Your task to perform on an android device: check out phone information Image 0: 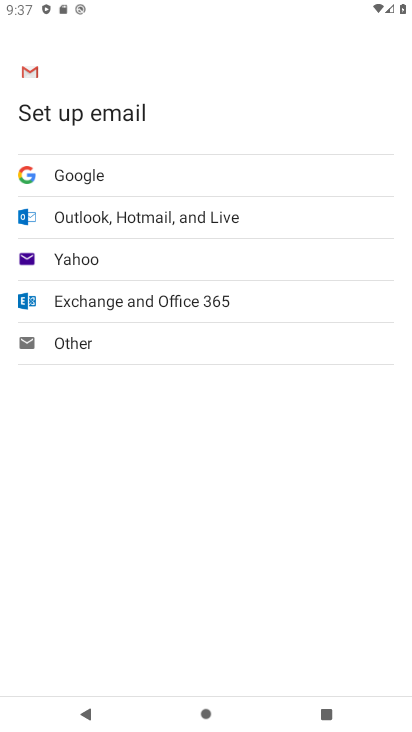
Step 0: drag from (212, 680) to (221, 160)
Your task to perform on an android device: check out phone information Image 1: 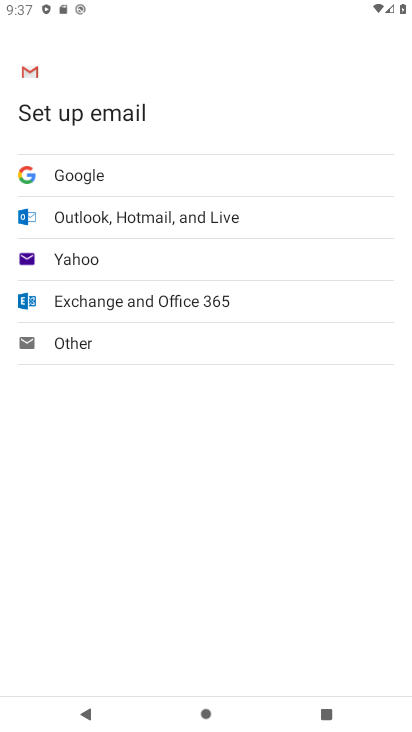
Step 1: press back button
Your task to perform on an android device: check out phone information Image 2: 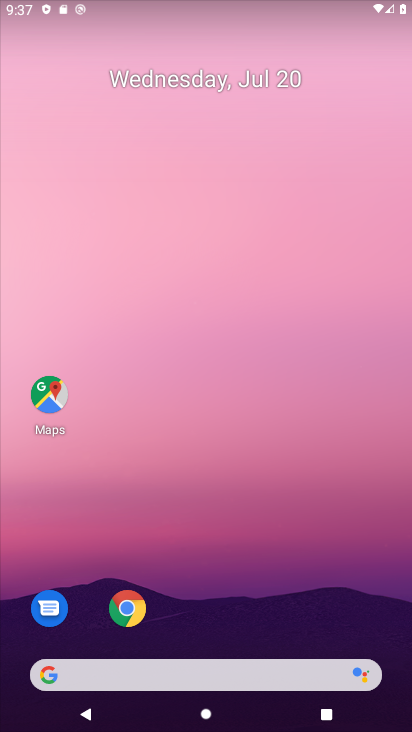
Step 2: drag from (200, 494) to (162, 54)
Your task to perform on an android device: check out phone information Image 3: 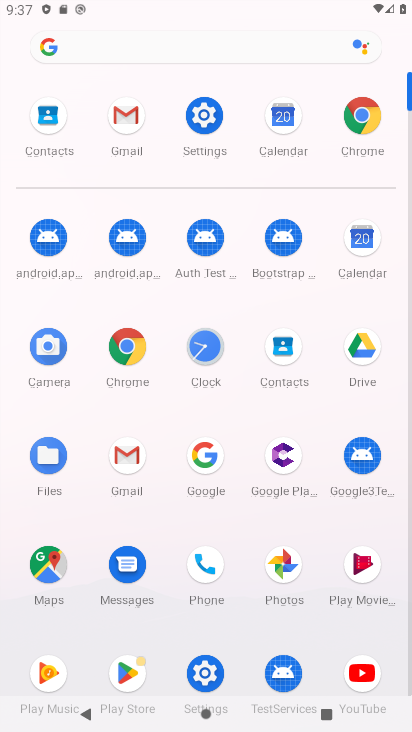
Step 3: click (188, 123)
Your task to perform on an android device: check out phone information Image 4: 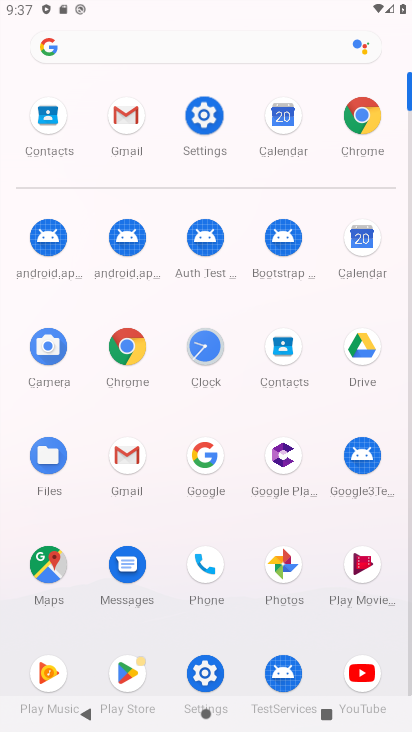
Step 4: click (198, 119)
Your task to perform on an android device: check out phone information Image 5: 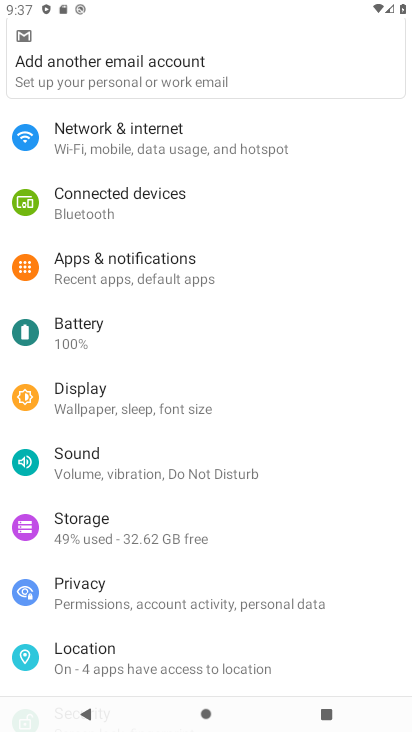
Step 5: drag from (135, 635) to (157, 245)
Your task to perform on an android device: check out phone information Image 6: 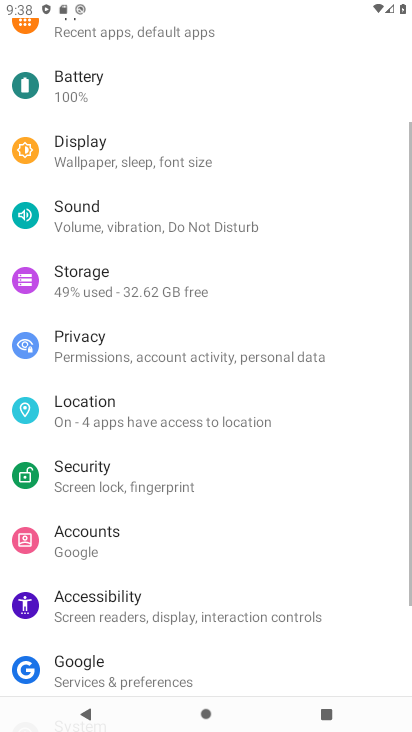
Step 6: drag from (166, 489) to (122, 106)
Your task to perform on an android device: check out phone information Image 7: 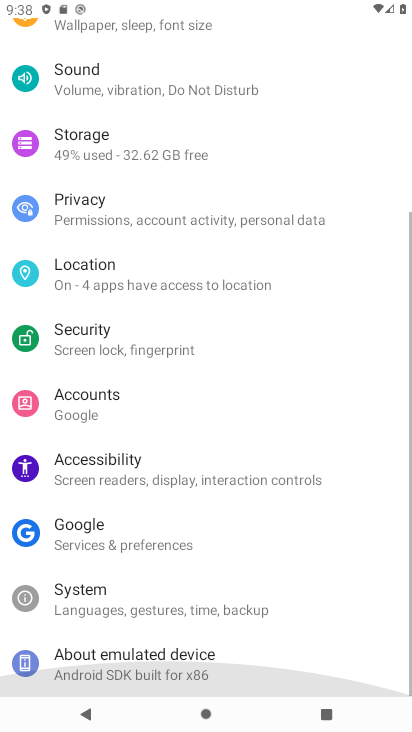
Step 7: drag from (165, 491) to (154, 160)
Your task to perform on an android device: check out phone information Image 8: 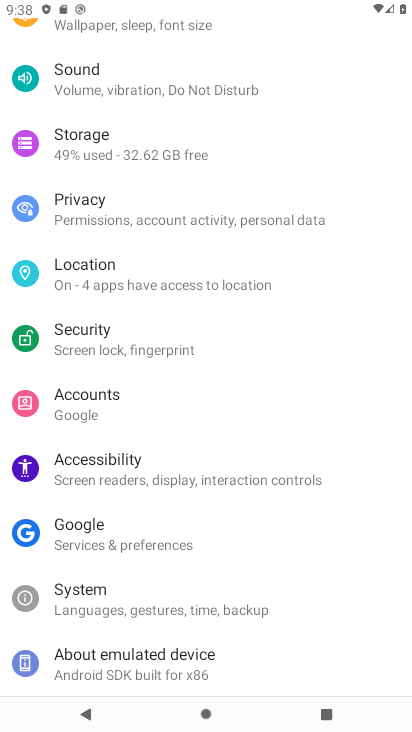
Step 8: click (106, 664)
Your task to perform on an android device: check out phone information Image 9: 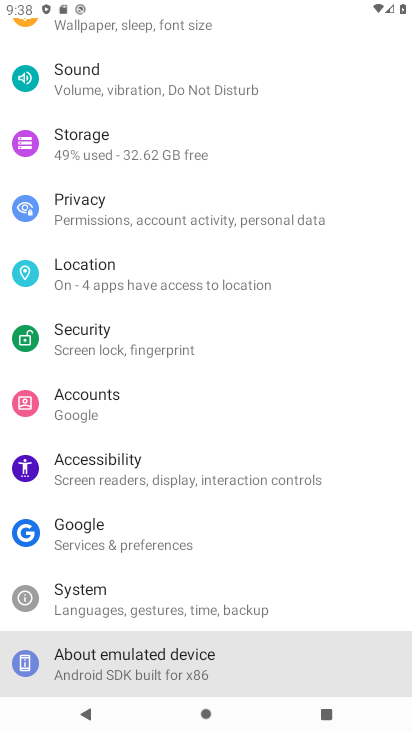
Step 9: click (106, 664)
Your task to perform on an android device: check out phone information Image 10: 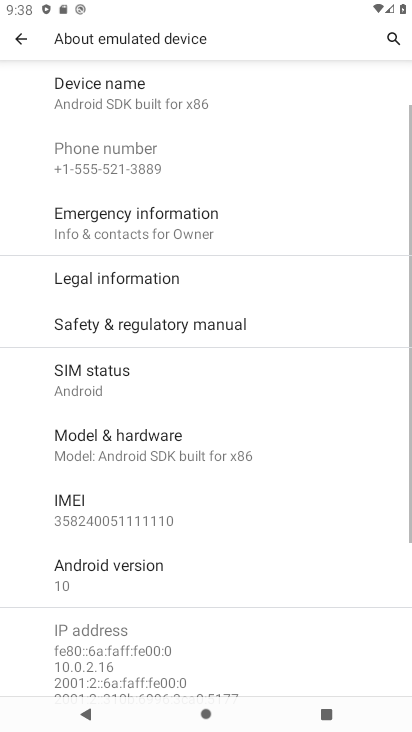
Step 10: click (150, 97)
Your task to perform on an android device: check out phone information Image 11: 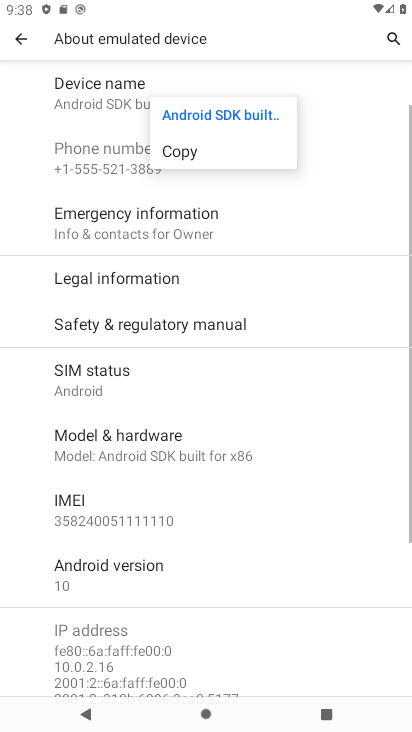
Step 11: click (109, 92)
Your task to perform on an android device: check out phone information Image 12: 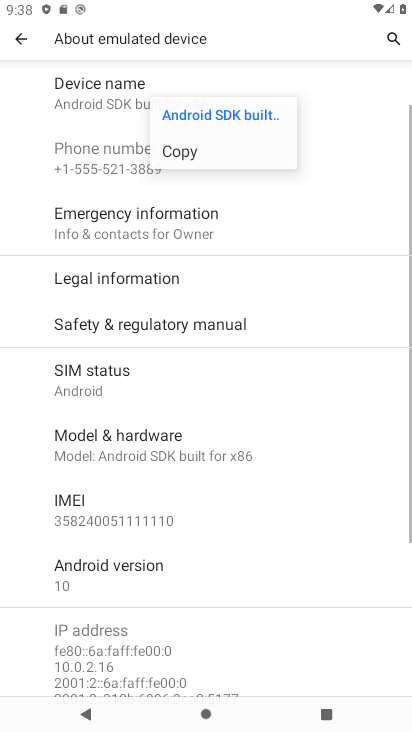
Step 12: click (114, 80)
Your task to perform on an android device: check out phone information Image 13: 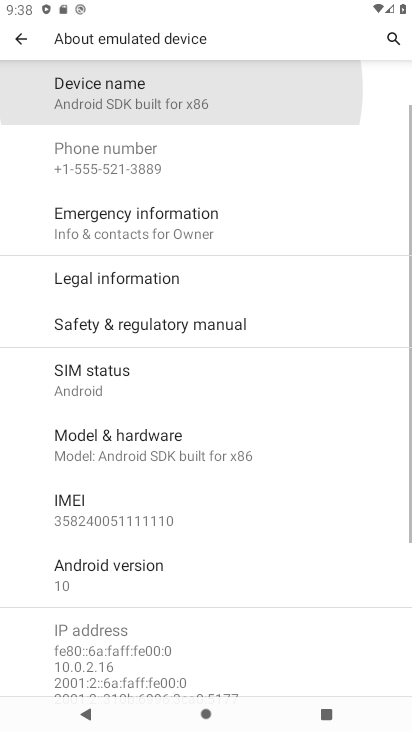
Step 13: click (118, 80)
Your task to perform on an android device: check out phone information Image 14: 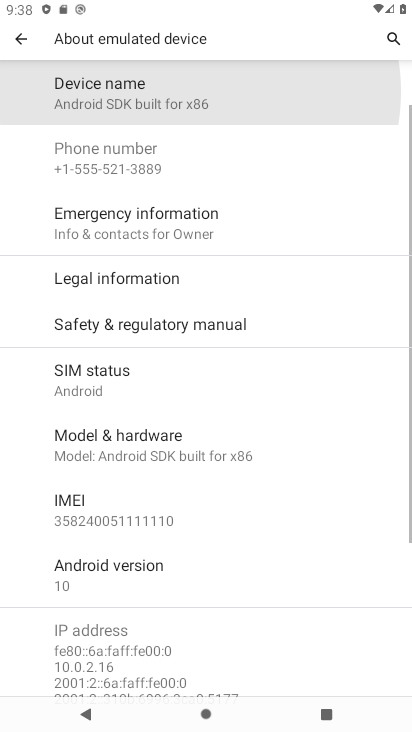
Step 14: click (121, 79)
Your task to perform on an android device: check out phone information Image 15: 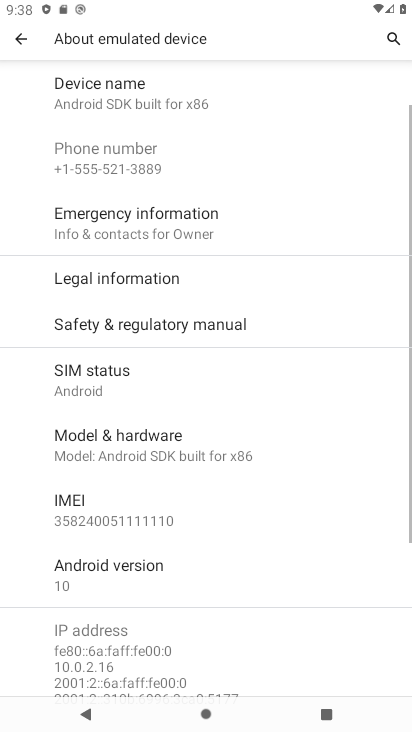
Step 15: task complete